Your task to perform on an android device: find snoozed emails in the gmail app Image 0: 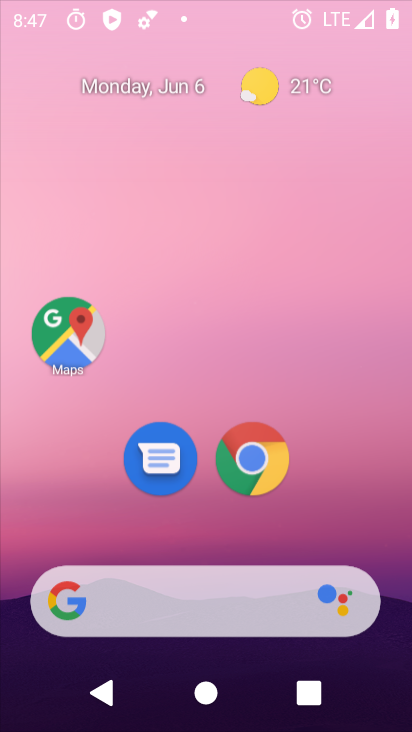
Step 0: drag from (219, 569) to (314, 115)
Your task to perform on an android device: find snoozed emails in the gmail app Image 1: 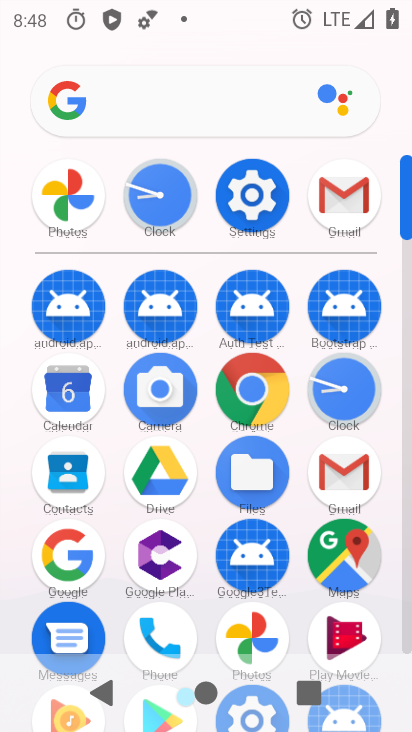
Step 1: click (342, 457)
Your task to perform on an android device: find snoozed emails in the gmail app Image 2: 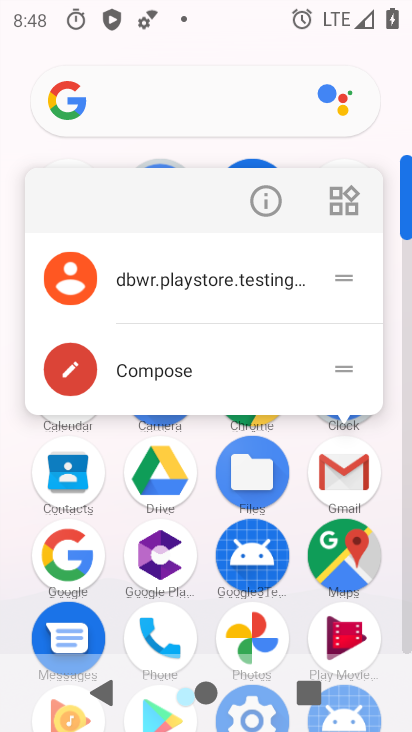
Step 2: click (175, 276)
Your task to perform on an android device: find snoozed emails in the gmail app Image 3: 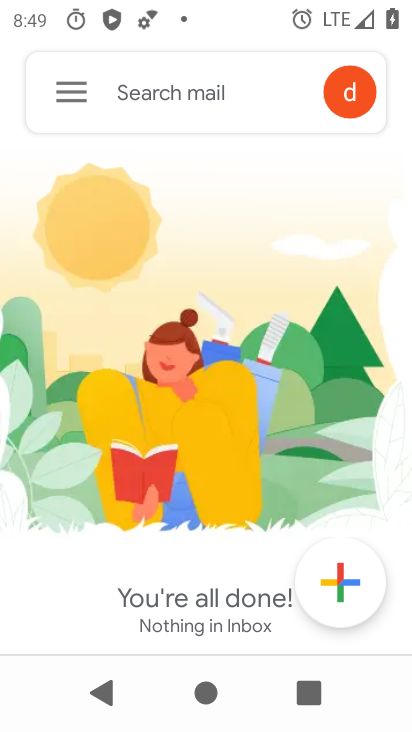
Step 3: click (63, 92)
Your task to perform on an android device: find snoozed emails in the gmail app Image 4: 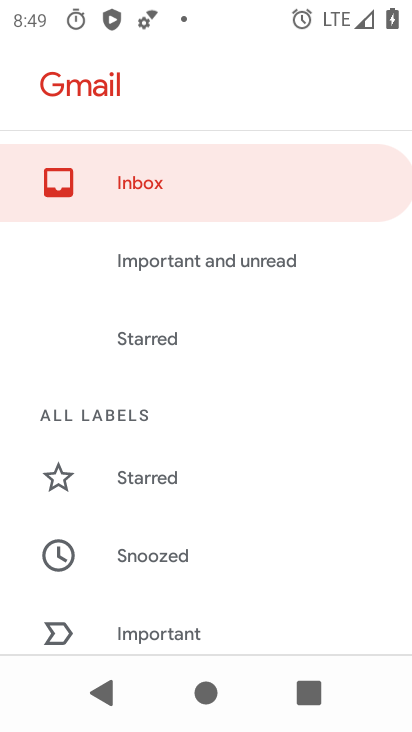
Step 4: click (165, 537)
Your task to perform on an android device: find snoozed emails in the gmail app Image 5: 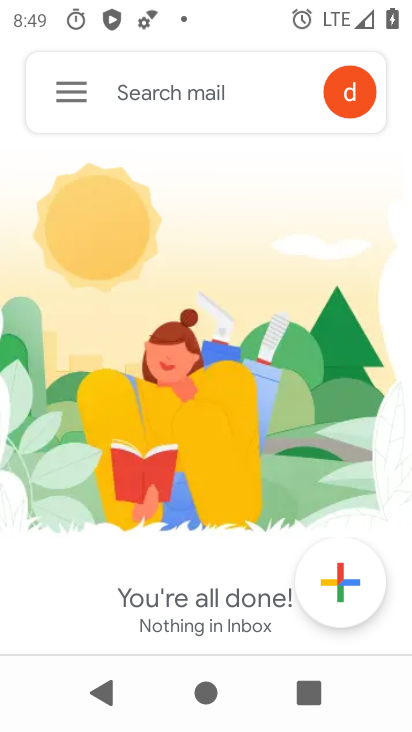
Step 5: task complete